Your task to perform on an android device: turn on improve location accuracy Image 0: 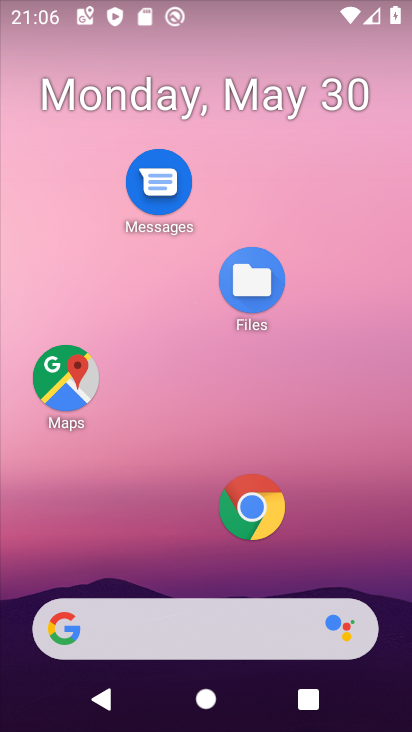
Step 0: drag from (169, 577) to (259, 0)
Your task to perform on an android device: turn on improve location accuracy Image 1: 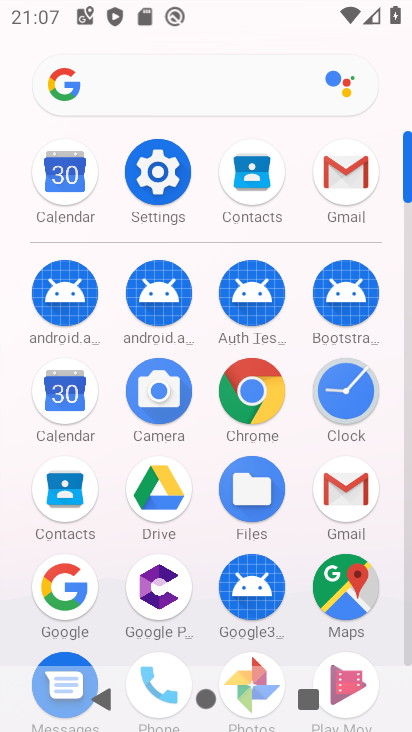
Step 1: drag from (203, 576) to (235, 130)
Your task to perform on an android device: turn on improve location accuracy Image 2: 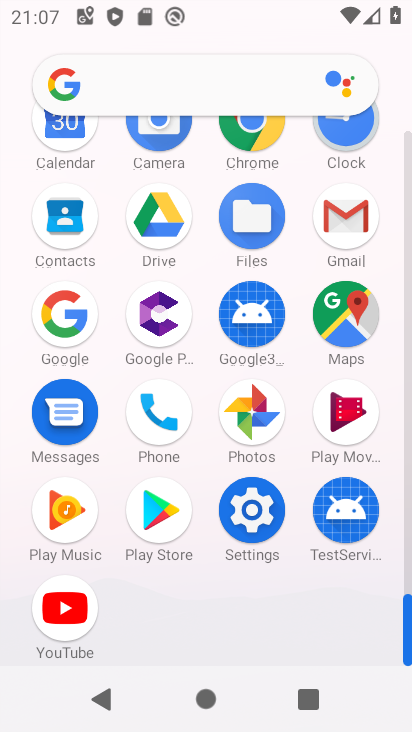
Step 2: click (262, 517)
Your task to perform on an android device: turn on improve location accuracy Image 3: 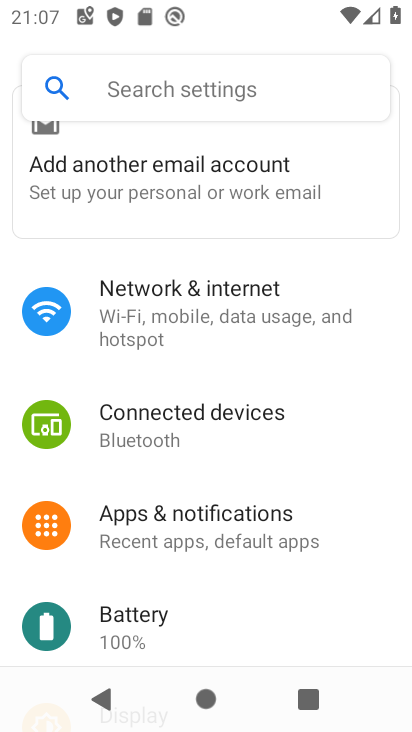
Step 3: drag from (223, 582) to (293, 271)
Your task to perform on an android device: turn on improve location accuracy Image 4: 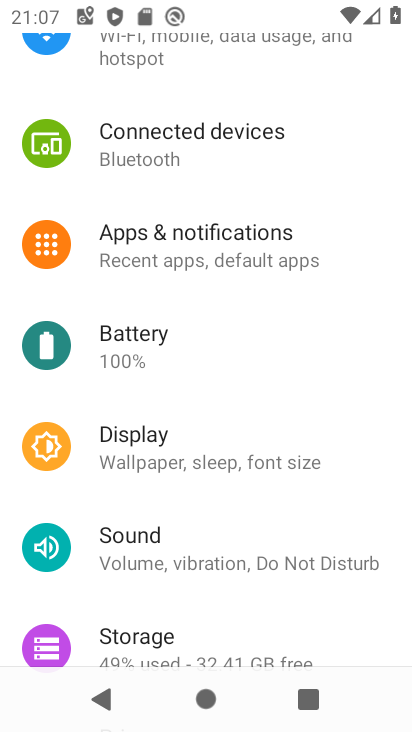
Step 4: drag from (169, 562) to (223, 248)
Your task to perform on an android device: turn on improve location accuracy Image 5: 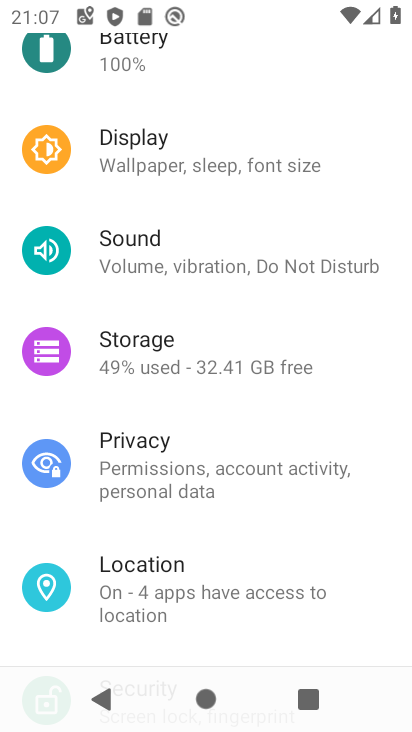
Step 5: click (154, 576)
Your task to perform on an android device: turn on improve location accuracy Image 6: 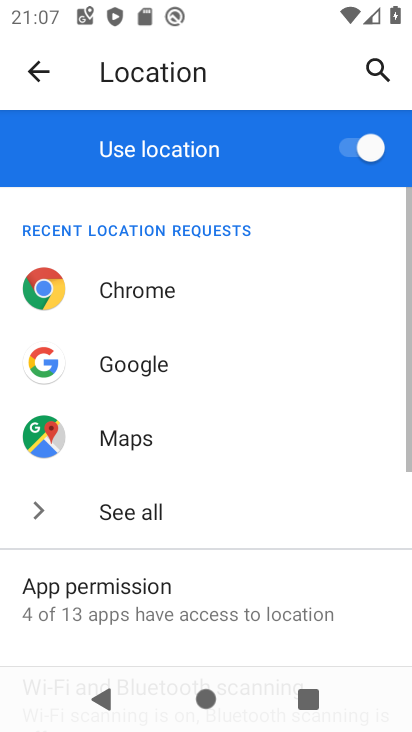
Step 6: drag from (163, 626) to (209, 430)
Your task to perform on an android device: turn on improve location accuracy Image 7: 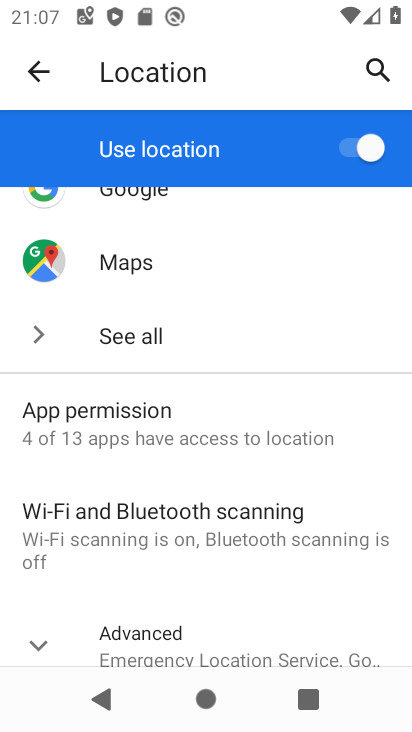
Step 7: drag from (155, 629) to (159, 581)
Your task to perform on an android device: turn on improve location accuracy Image 8: 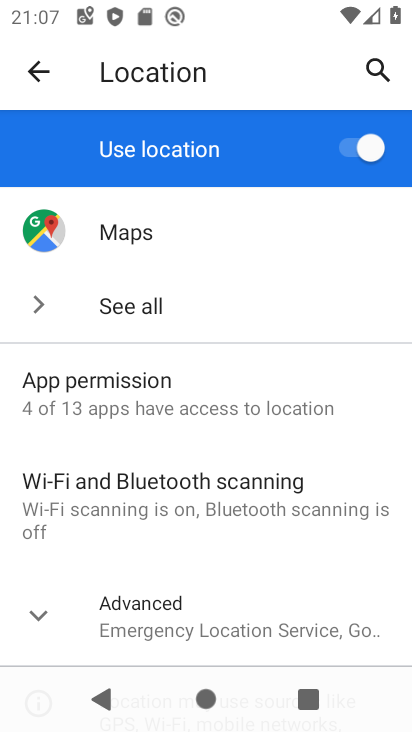
Step 8: click (138, 620)
Your task to perform on an android device: turn on improve location accuracy Image 9: 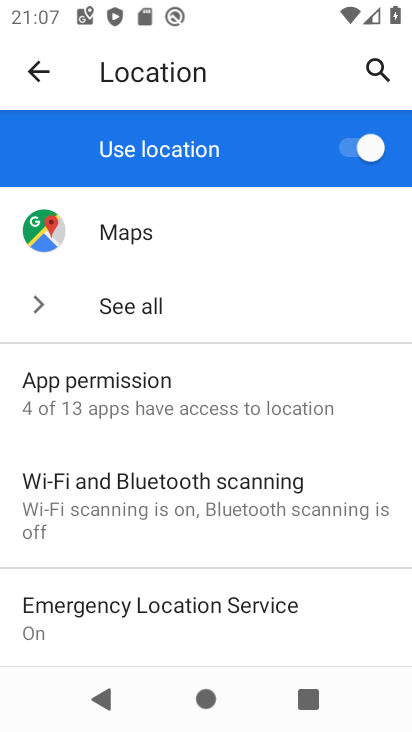
Step 9: drag from (191, 607) to (242, 259)
Your task to perform on an android device: turn on improve location accuracy Image 10: 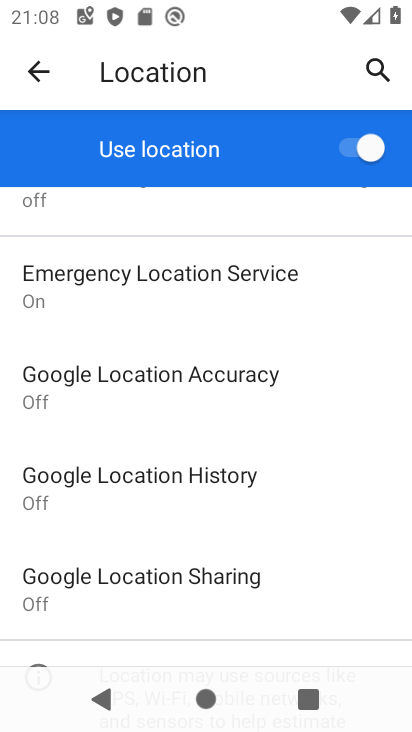
Step 10: click (241, 387)
Your task to perform on an android device: turn on improve location accuracy Image 11: 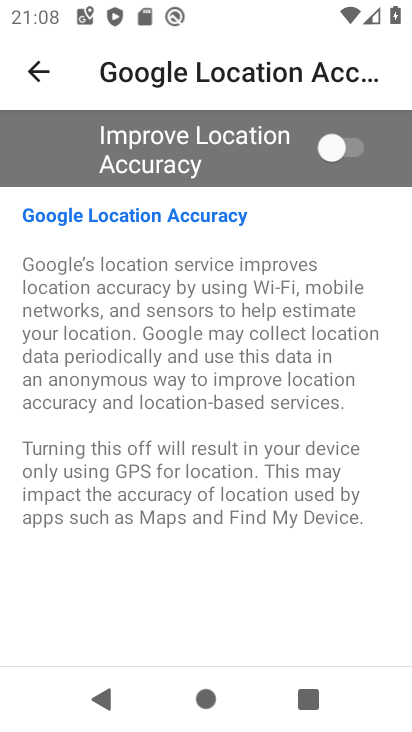
Step 11: click (361, 145)
Your task to perform on an android device: turn on improve location accuracy Image 12: 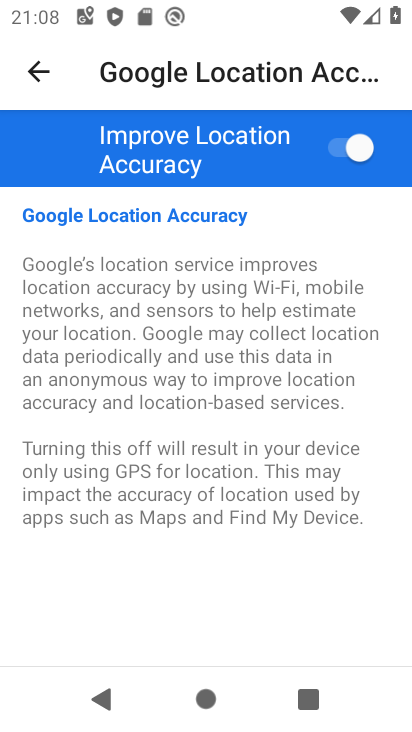
Step 12: task complete